Your task to perform on an android device: What's on my calendar tomorrow? Image 0: 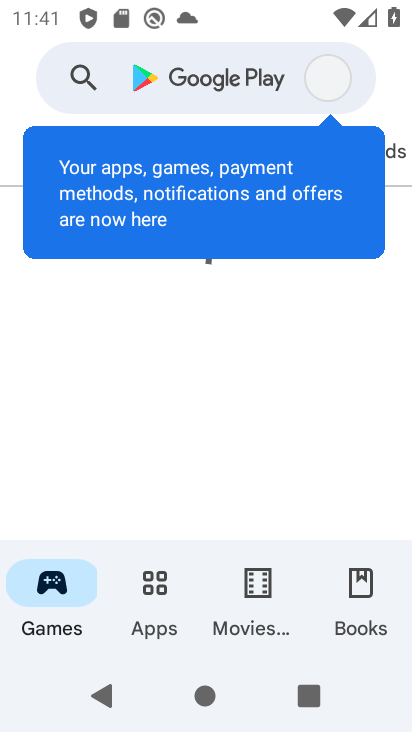
Step 0: press home button
Your task to perform on an android device: What's on my calendar tomorrow? Image 1: 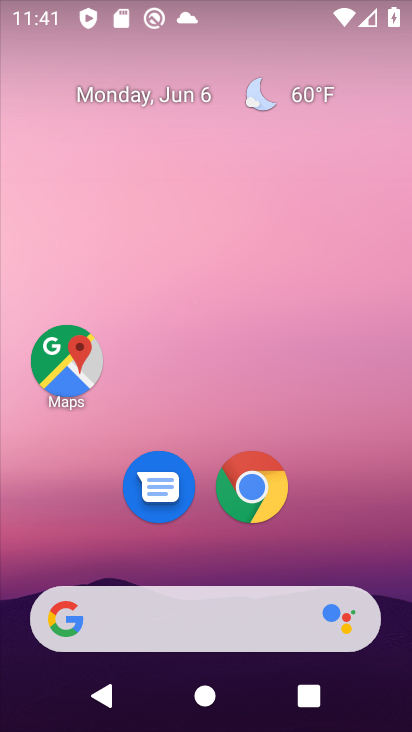
Step 1: drag from (383, 541) to (314, 209)
Your task to perform on an android device: What's on my calendar tomorrow? Image 2: 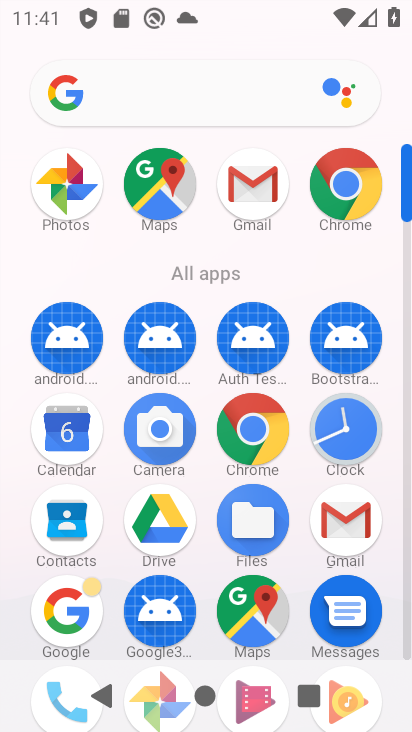
Step 2: click (66, 443)
Your task to perform on an android device: What's on my calendar tomorrow? Image 3: 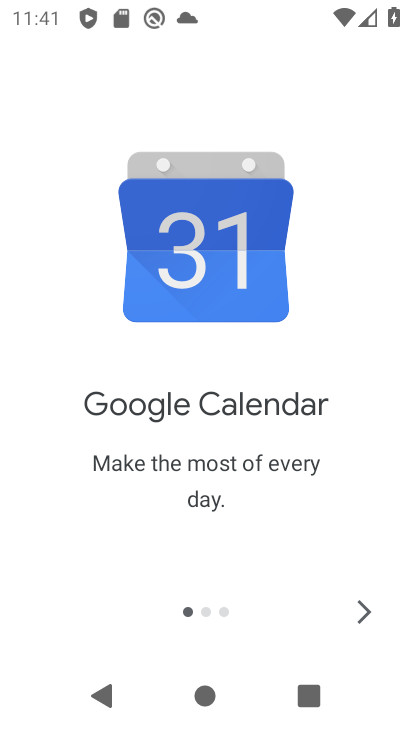
Step 3: click (366, 613)
Your task to perform on an android device: What's on my calendar tomorrow? Image 4: 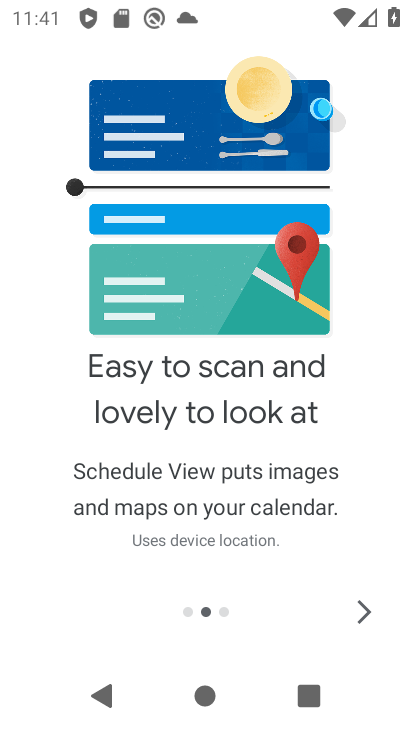
Step 4: click (366, 613)
Your task to perform on an android device: What's on my calendar tomorrow? Image 5: 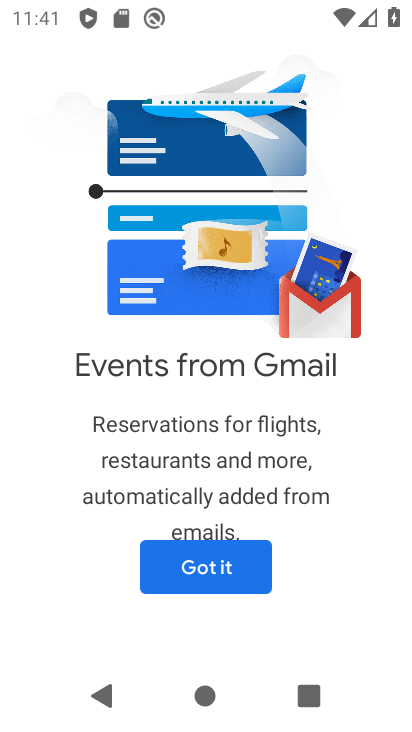
Step 5: click (221, 574)
Your task to perform on an android device: What's on my calendar tomorrow? Image 6: 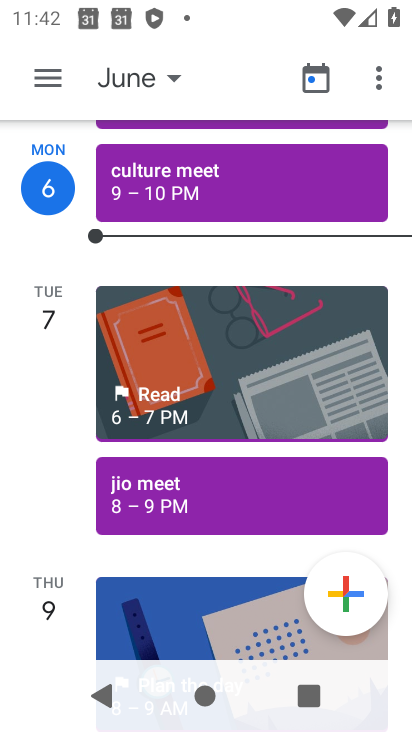
Step 6: click (154, 66)
Your task to perform on an android device: What's on my calendar tomorrow? Image 7: 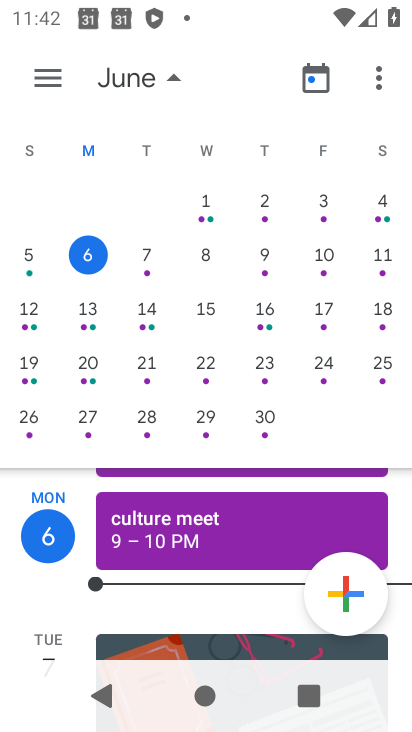
Step 7: click (153, 261)
Your task to perform on an android device: What's on my calendar tomorrow? Image 8: 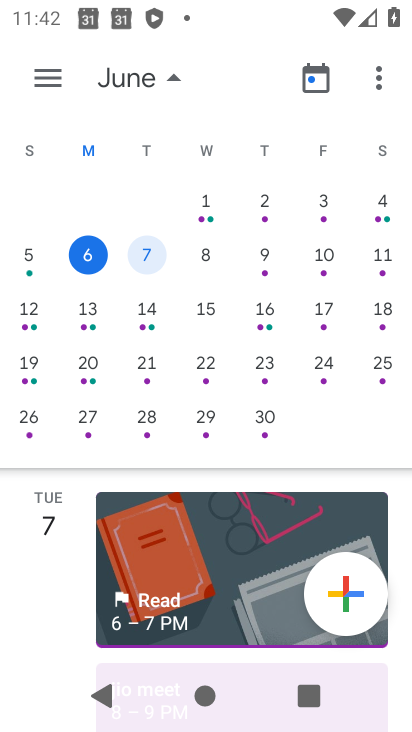
Step 8: click (122, 85)
Your task to perform on an android device: What's on my calendar tomorrow? Image 9: 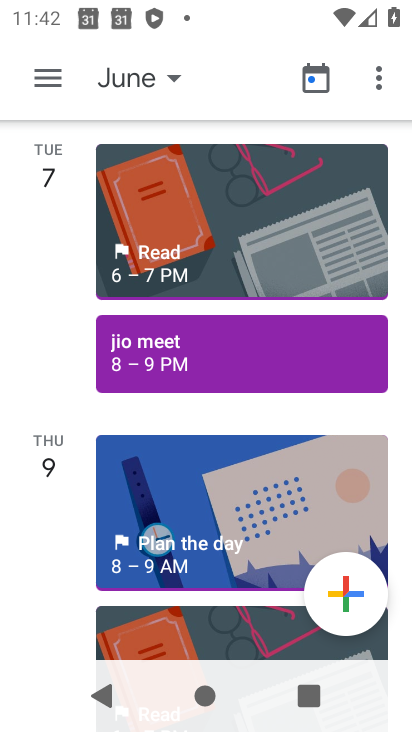
Step 9: click (157, 80)
Your task to perform on an android device: What's on my calendar tomorrow? Image 10: 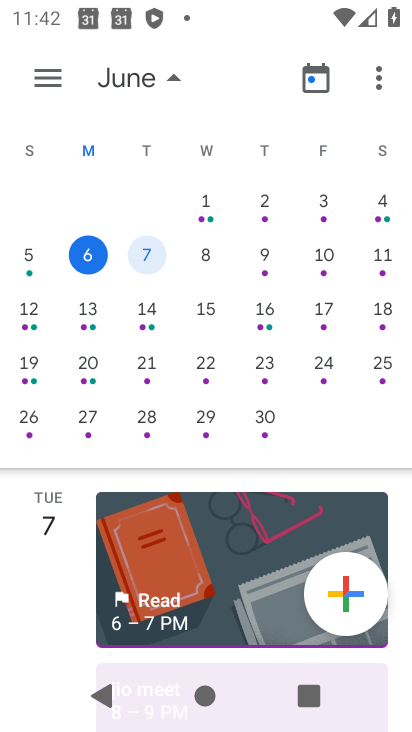
Step 10: click (211, 264)
Your task to perform on an android device: What's on my calendar tomorrow? Image 11: 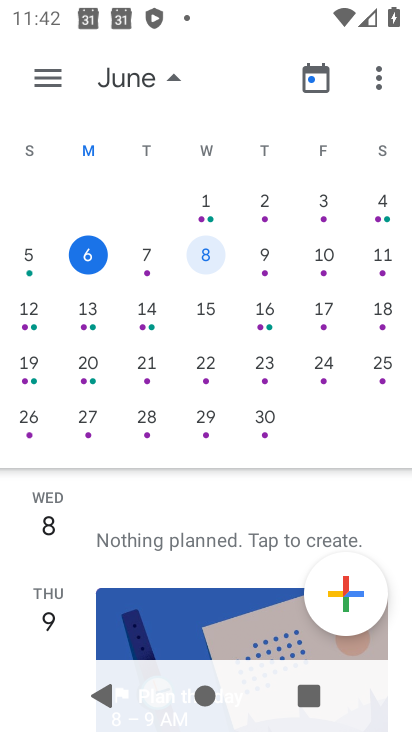
Step 11: click (127, 83)
Your task to perform on an android device: What's on my calendar tomorrow? Image 12: 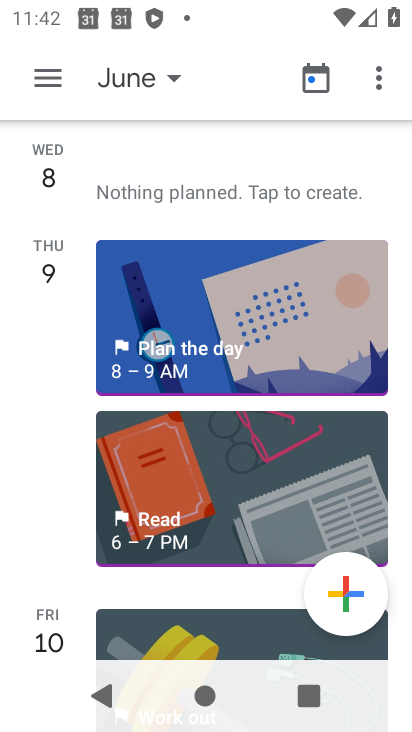
Step 12: task complete